Your task to perform on an android device: Search for Mexican restaurants on Maps Image 0: 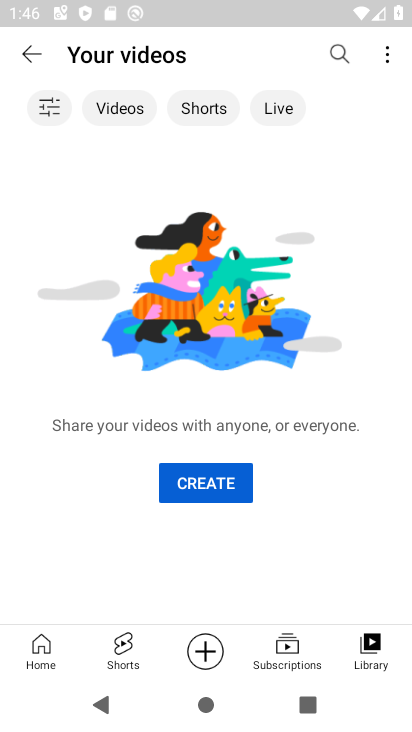
Step 0: press home button
Your task to perform on an android device: Search for Mexican restaurants on Maps Image 1: 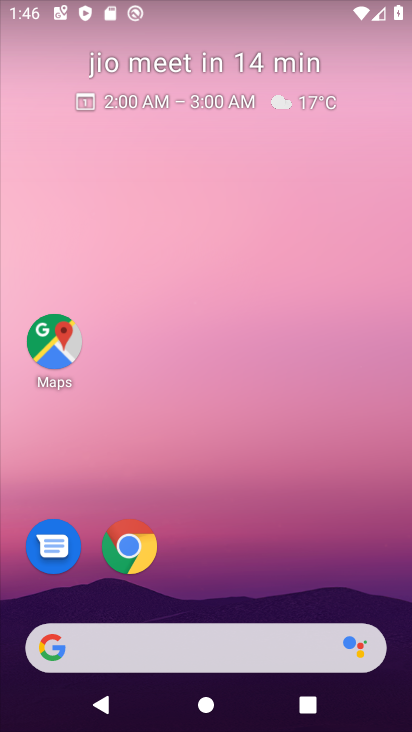
Step 1: drag from (230, 601) to (388, 1)
Your task to perform on an android device: Search for Mexican restaurants on Maps Image 2: 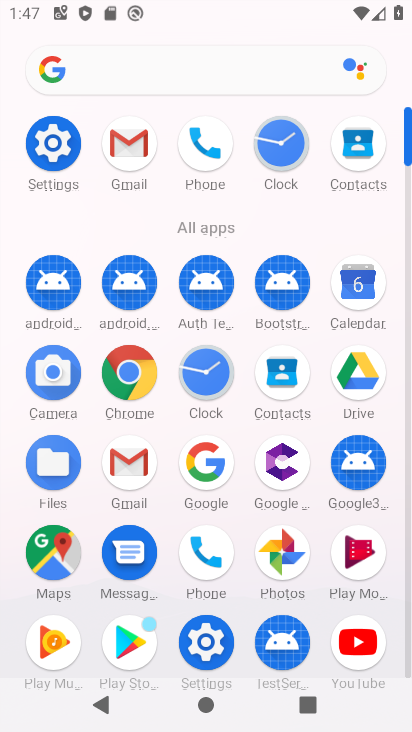
Step 2: click (60, 548)
Your task to perform on an android device: Search for Mexican restaurants on Maps Image 3: 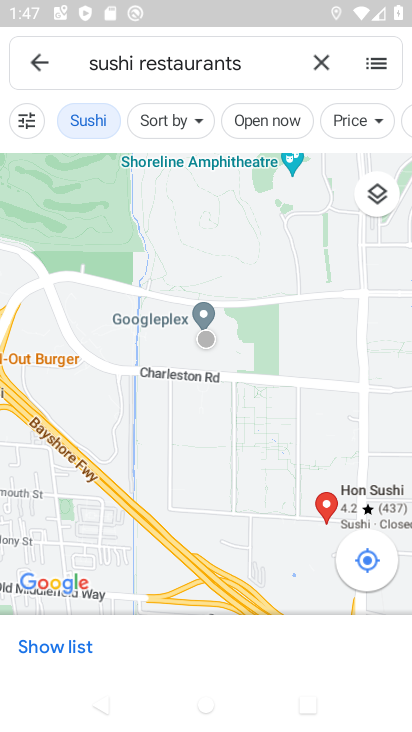
Step 3: click (313, 62)
Your task to perform on an android device: Search for Mexican restaurants on Maps Image 4: 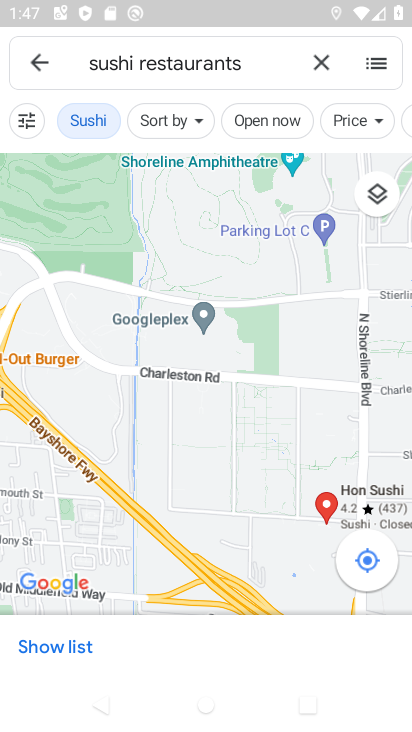
Step 4: click (244, 62)
Your task to perform on an android device: Search for Mexican restaurants on Maps Image 5: 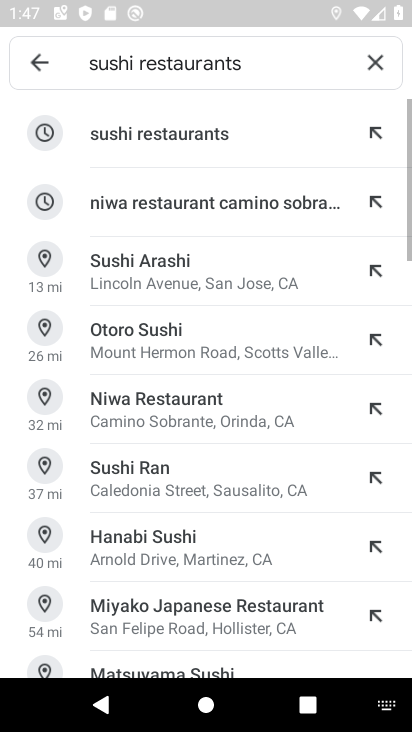
Step 5: click (373, 60)
Your task to perform on an android device: Search for Mexican restaurants on Maps Image 6: 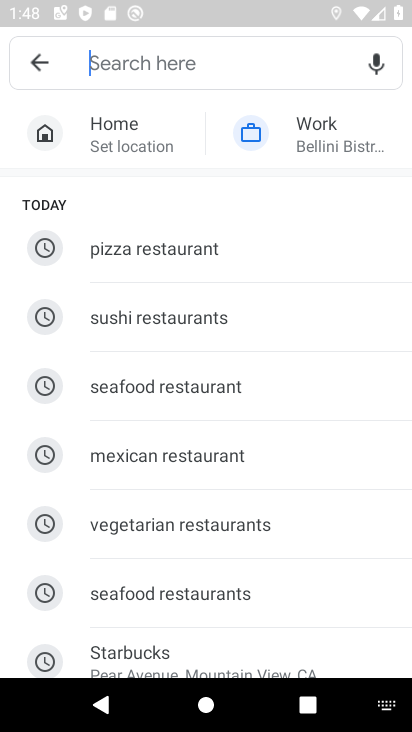
Step 6: click (193, 452)
Your task to perform on an android device: Search for Mexican restaurants on Maps Image 7: 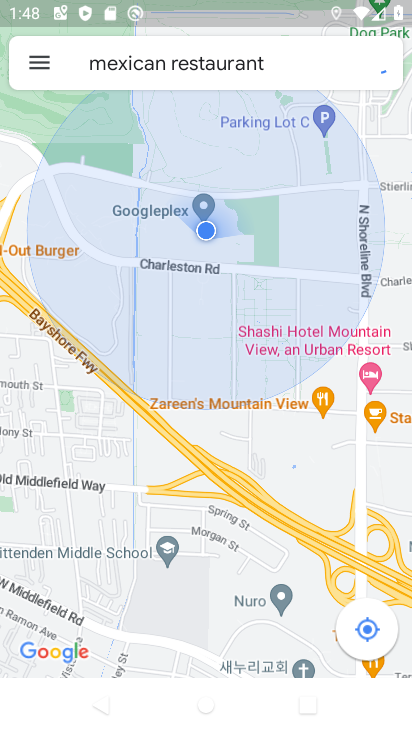
Step 7: task complete